Your task to perform on an android device: Open Google Chrome Image 0: 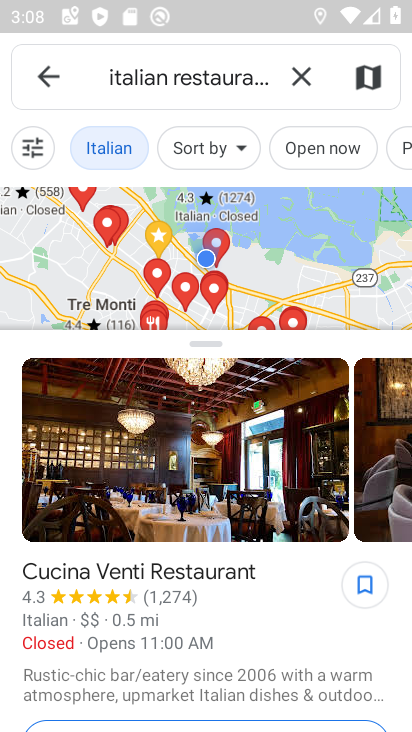
Step 0: press home button
Your task to perform on an android device: Open Google Chrome Image 1: 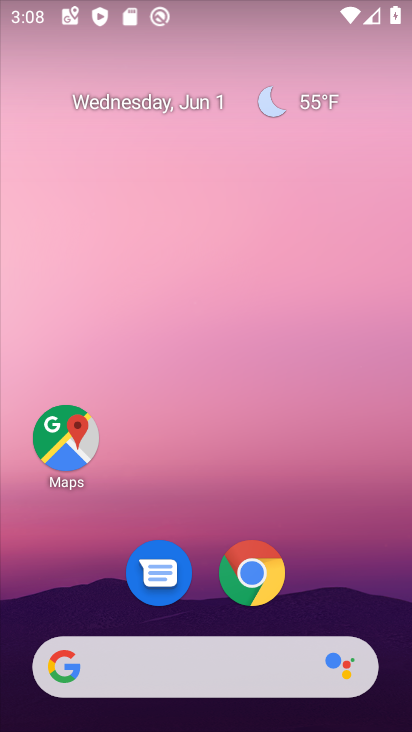
Step 1: click (255, 576)
Your task to perform on an android device: Open Google Chrome Image 2: 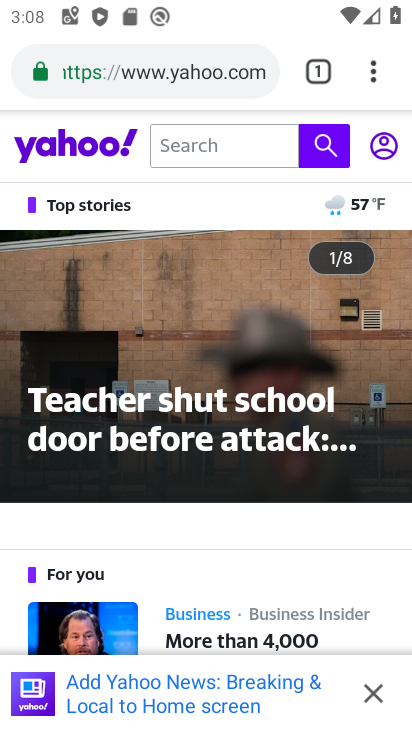
Step 2: task complete